Your task to perform on an android device: Open CNN.com Image 0: 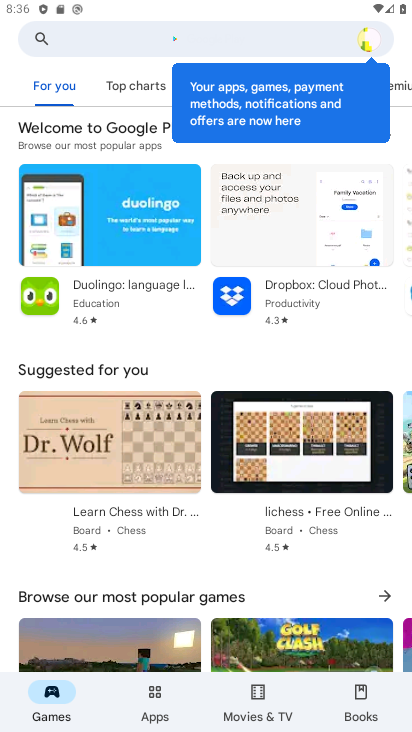
Step 0: press back button
Your task to perform on an android device: Open CNN.com Image 1: 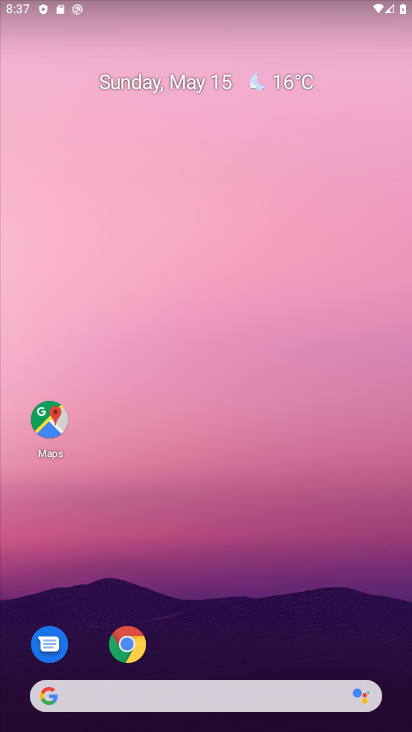
Step 1: click (131, 638)
Your task to perform on an android device: Open CNN.com Image 2: 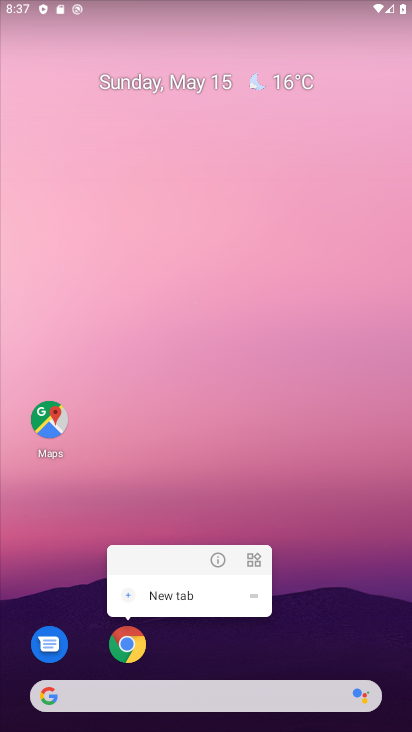
Step 2: click (133, 649)
Your task to perform on an android device: Open CNN.com Image 3: 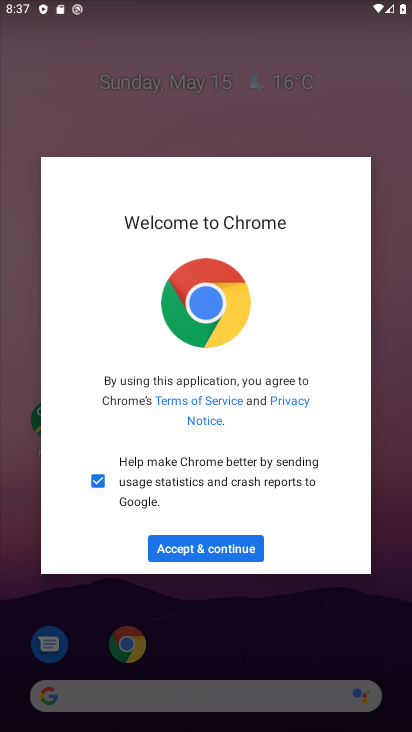
Step 3: click (207, 550)
Your task to perform on an android device: Open CNN.com Image 4: 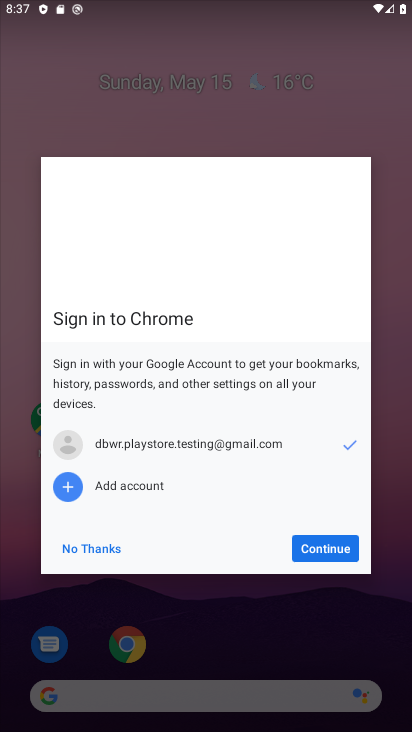
Step 4: click (328, 547)
Your task to perform on an android device: Open CNN.com Image 5: 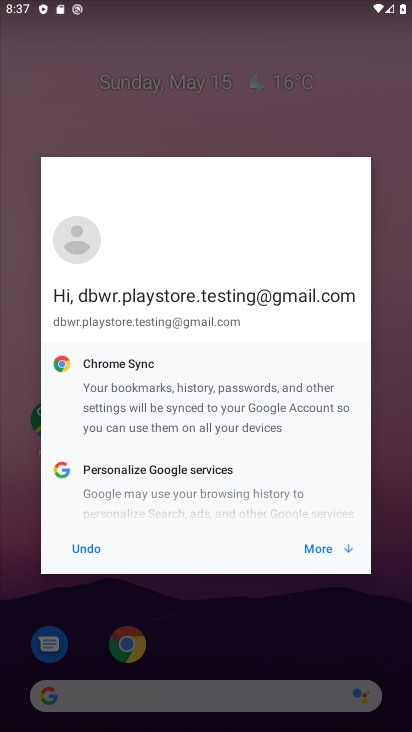
Step 5: click (328, 547)
Your task to perform on an android device: Open CNN.com Image 6: 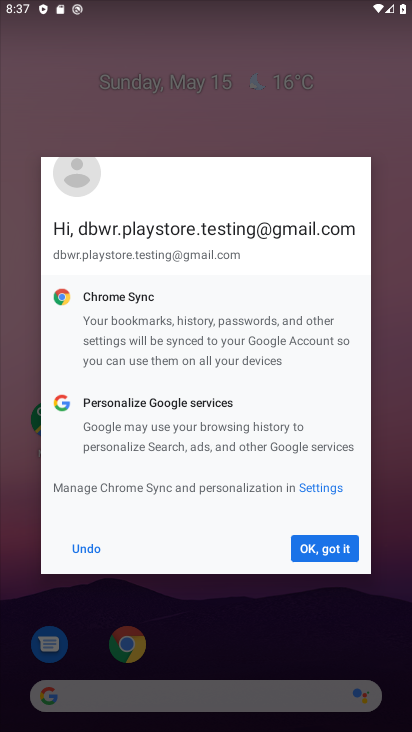
Step 6: click (328, 547)
Your task to perform on an android device: Open CNN.com Image 7: 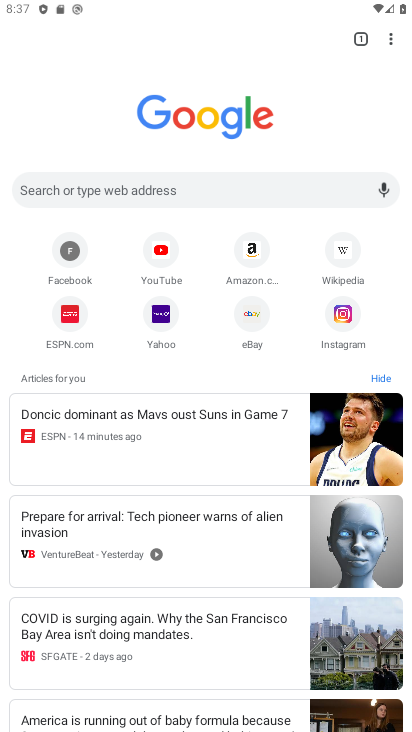
Step 7: click (156, 195)
Your task to perform on an android device: Open CNN.com Image 8: 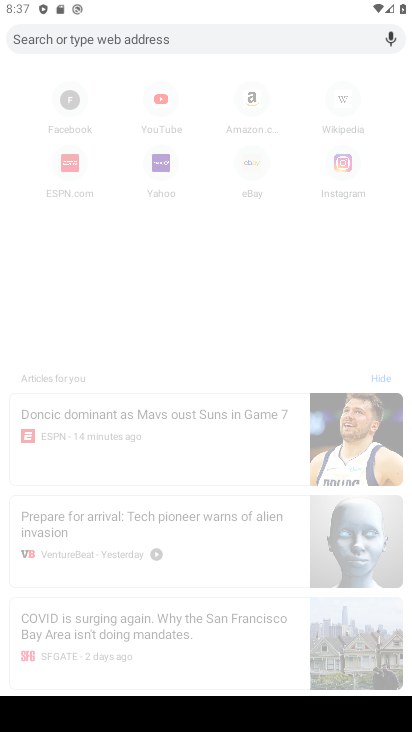
Step 8: type "cnn.com"
Your task to perform on an android device: Open CNN.com Image 9: 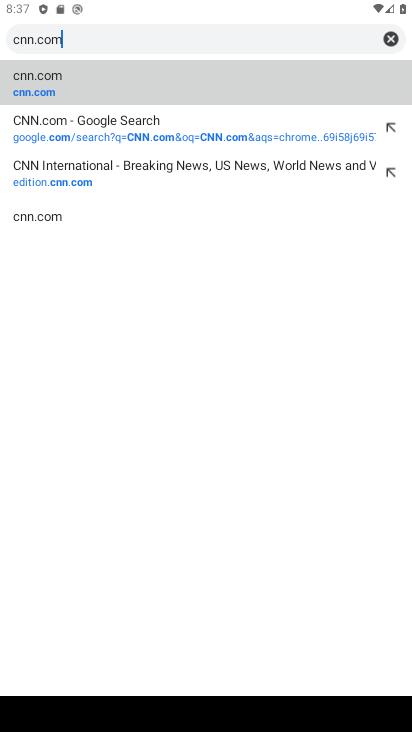
Step 9: click (72, 85)
Your task to perform on an android device: Open CNN.com Image 10: 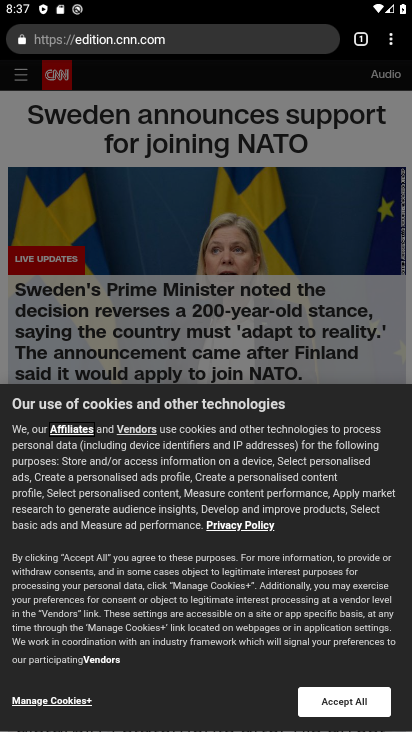
Step 10: click (340, 707)
Your task to perform on an android device: Open CNN.com Image 11: 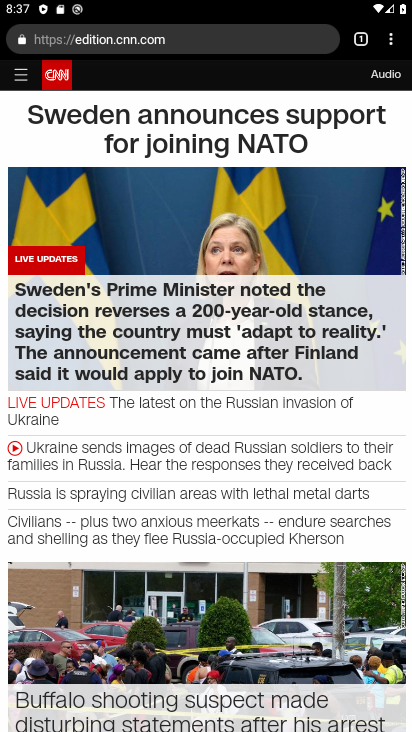
Step 11: task complete